Your task to perform on an android device: Do I have any events this weekend? Image 0: 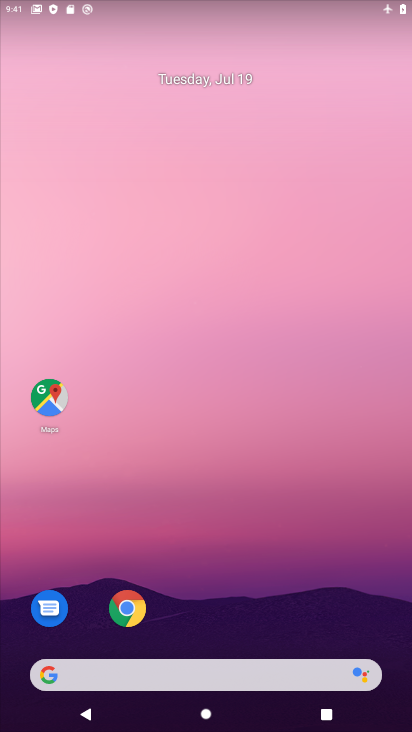
Step 0: drag from (255, 597) to (264, 60)
Your task to perform on an android device: Do I have any events this weekend? Image 1: 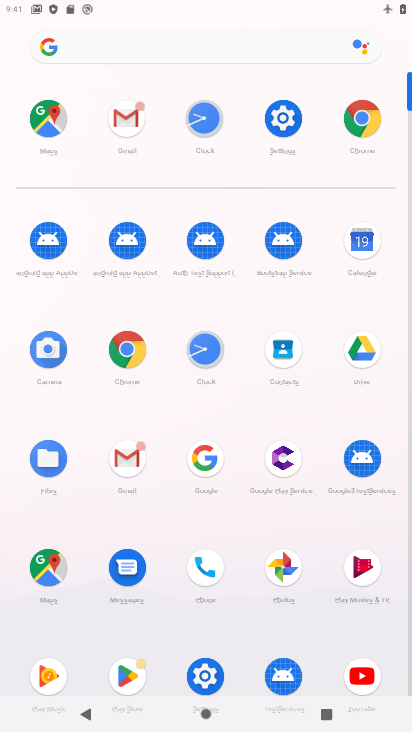
Step 1: click (365, 240)
Your task to perform on an android device: Do I have any events this weekend? Image 2: 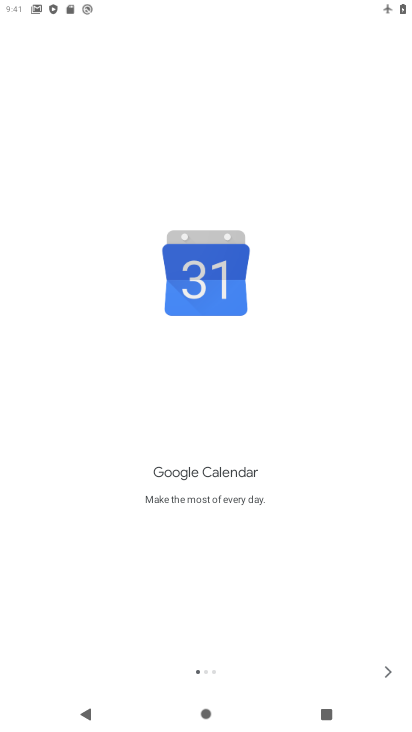
Step 2: click (387, 661)
Your task to perform on an android device: Do I have any events this weekend? Image 3: 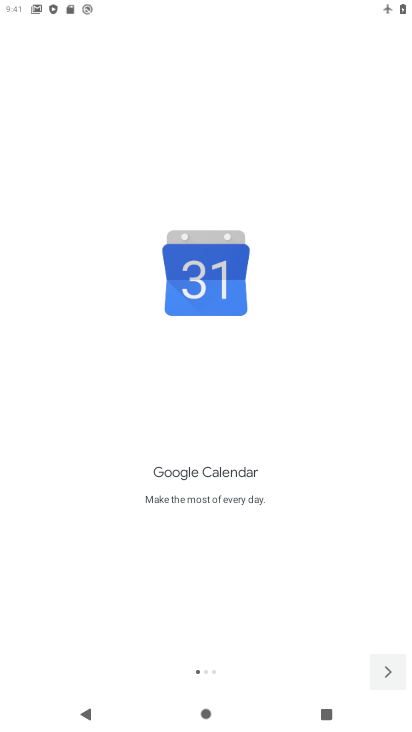
Step 3: click (387, 661)
Your task to perform on an android device: Do I have any events this weekend? Image 4: 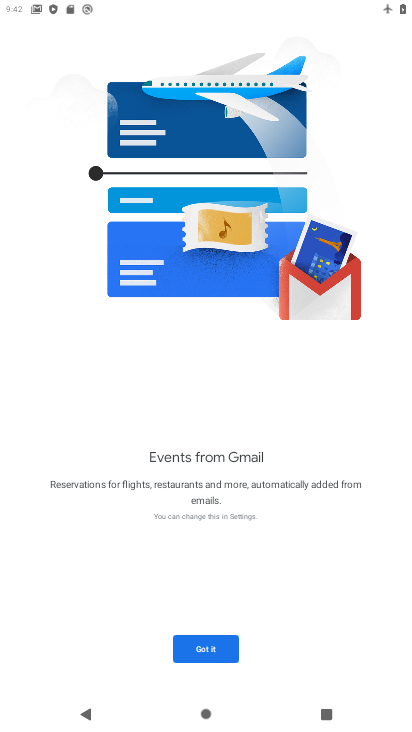
Step 4: click (223, 664)
Your task to perform on an android device: Do I have any events this weekend? Image 5: 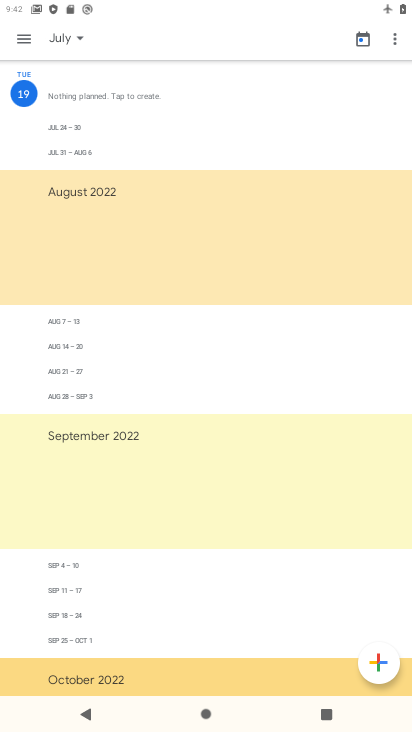
Step 5: click (17, 40)
Your task to perform on an android device: Do I have any events this weekend? Image 6: 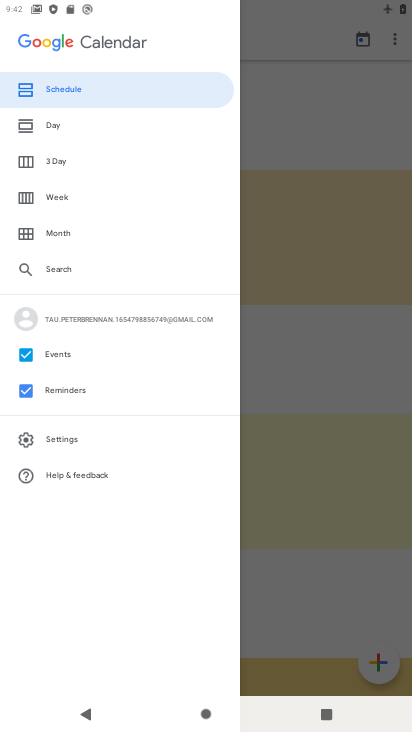
Step 6: click (58, 165)
Your task to perform on an android device: Do I have any events this weekend? Image 7: 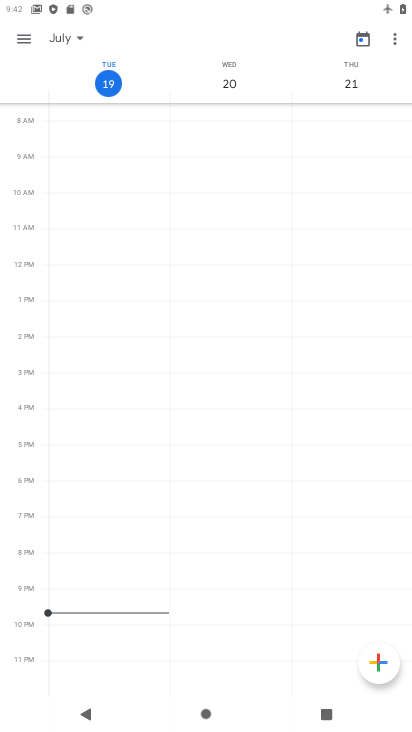
Step 7: task complete